Your task to perform on an android device: Show me popular videos on Youtube Image 0: 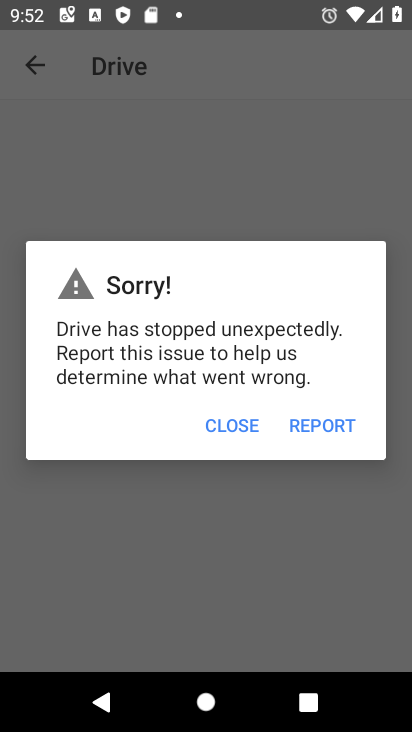
Step 0: press home button
Your task to perform on an android device: Show me popular videos on Youtube Image 1: 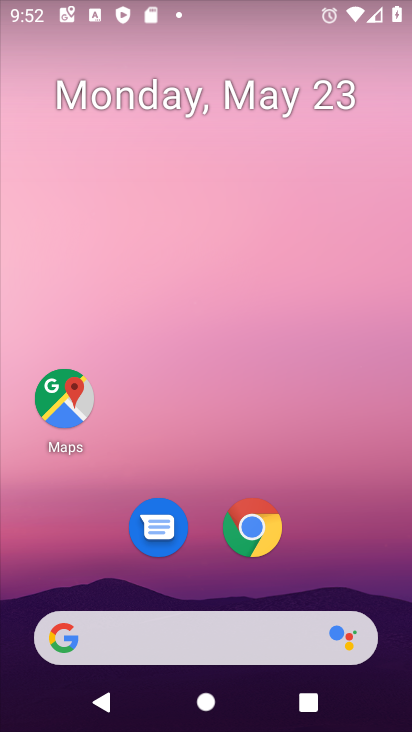
Step 1: drag from (336, 554) to (283, 24)
Your task to perform on an android device: Show me popular videos on Youtube Image 2: 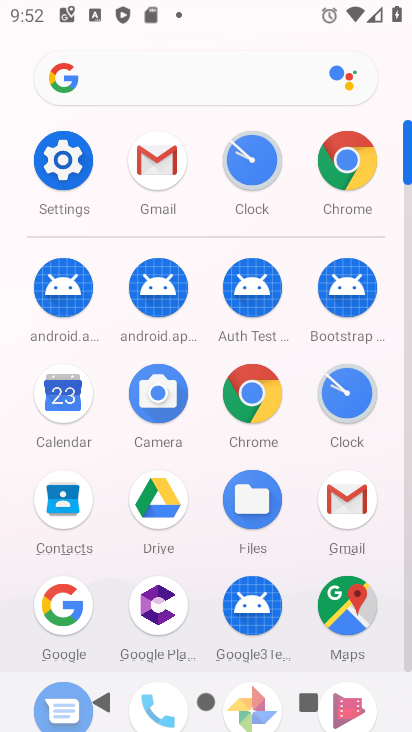
Step 2: drag from (17, 608) to (36, 283)
Your task to perform on an android device: Show me popular videos on Youtube Image 3: 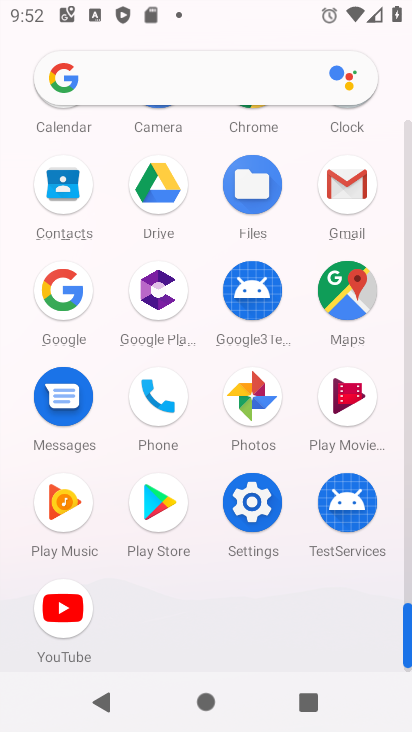
Step 3: click (60, 601)
Your task to perform on an android device: Show me popular videos on Youtube Image 4: 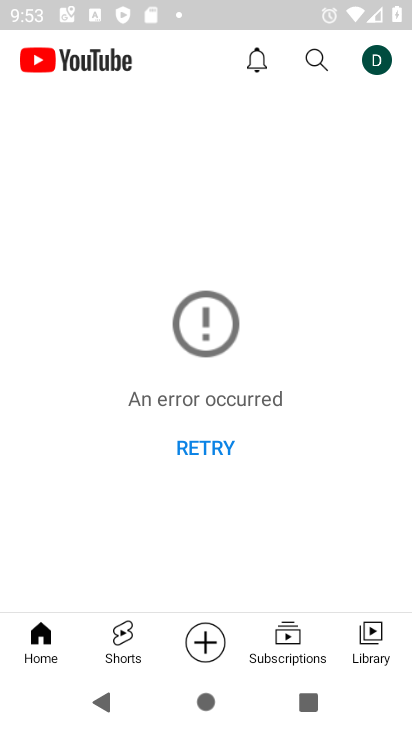
Step 4: click (368, 637)
Your task to perform on an android device: Show me popular videos on Youtube Image 5: 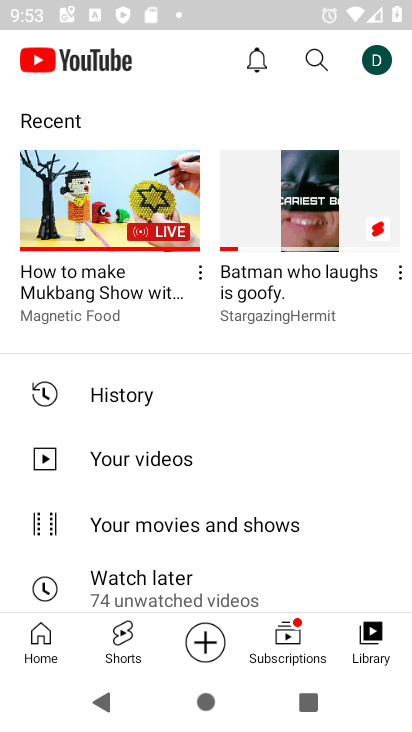
Step 5: drag from (310, 193) to (137, 204)
Your task to perform on an android device: Show me popular videos on Youtube Image 6: 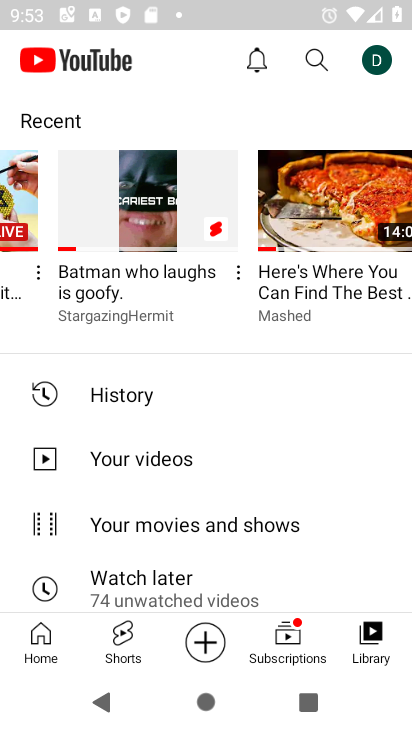
Step 6: click (56, 644)
Your task to perform on an android device: Show me popular videos on Youtube Image 7: 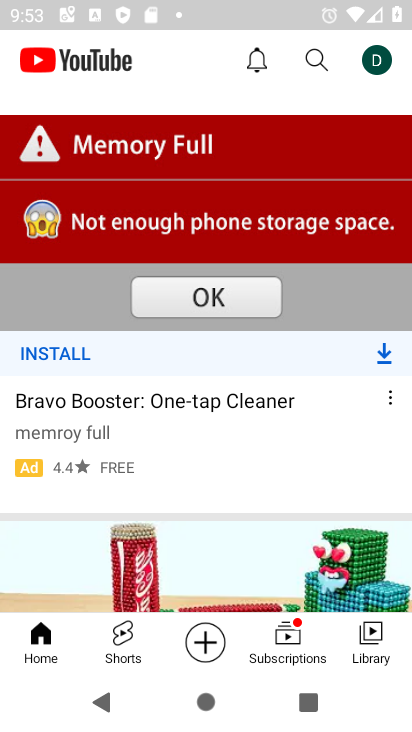
Step 7: drag from (90, 188) to (124, 450)
Your task to perform on an android device: Show me popular videos on Youtube Image 8: 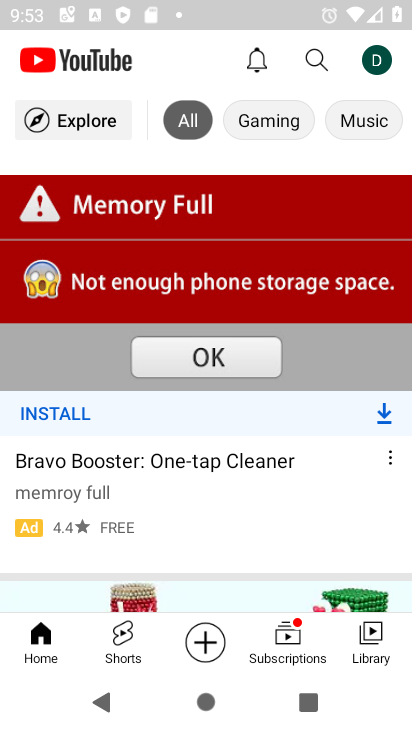
Step 8: click (82, 111)
Your task to perform on an android device: Show me popular videos on Youtube Image 9: 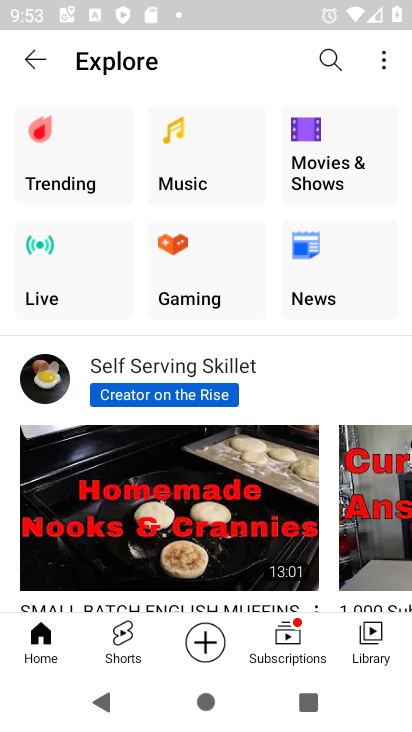
Step 9: click (80, 150)
Your task to perform on an android device: Show me popular videos on Youtube Image 10: 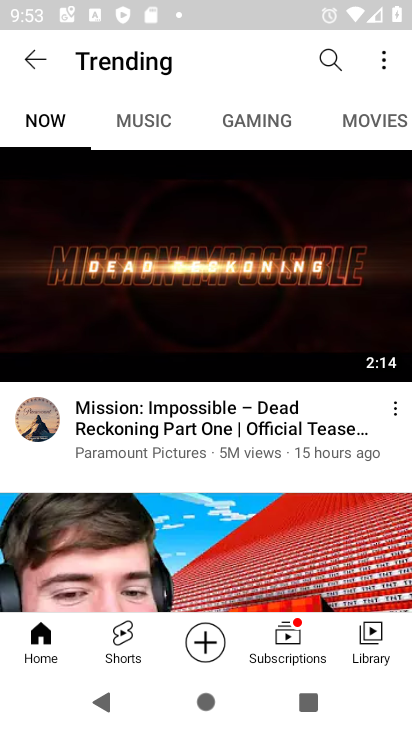
Step 10: click (237, 257)
Your task to perform on an android device: Show me popular videos on Youtube Image 11: 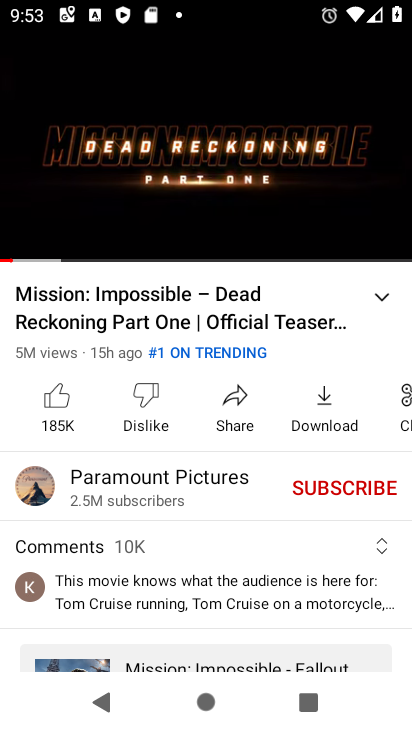
Step 11: task complete